Your task to perform on an android device: set an alarm Image 0: 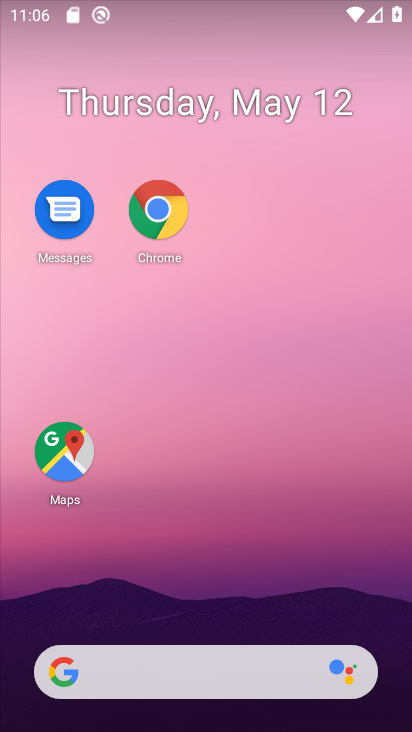
Step 0: drag from (185, 589) to (258, 50)
Your task to perform on an android device: set an alarm Image 1: 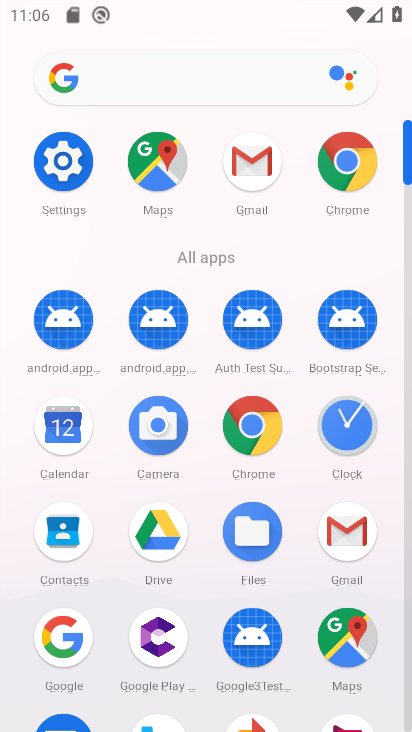
Step 1: click (349, 438)
Your task to perform on an android device: set an alarm Image 2: 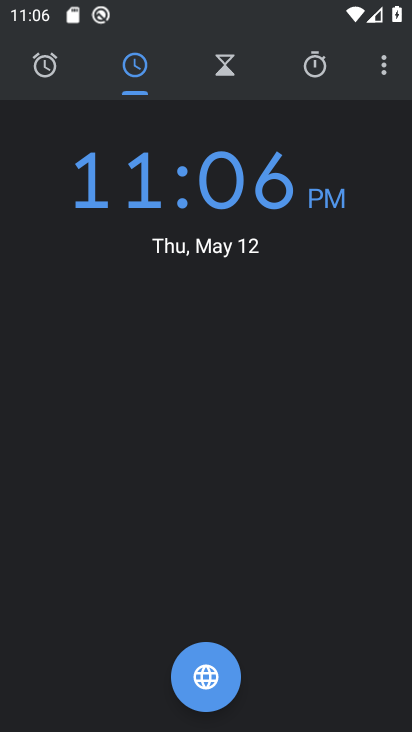
Step 2: click (41, 63)
Your task to perform on an android device: set an alarm Image 3: 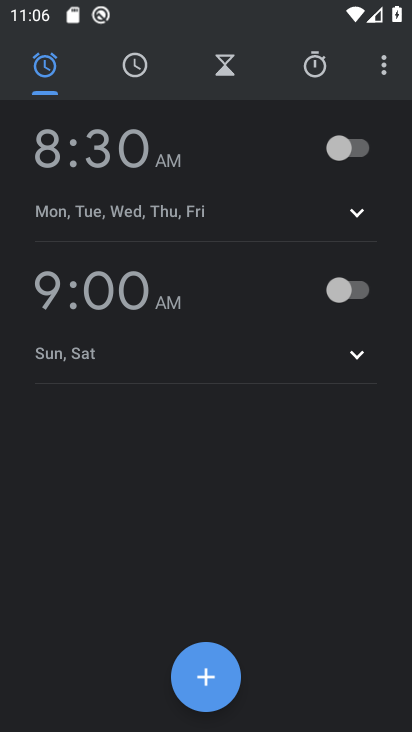
Step 3: click (360, 146)
Your task to perform on an android device: set an alarm Image 4: 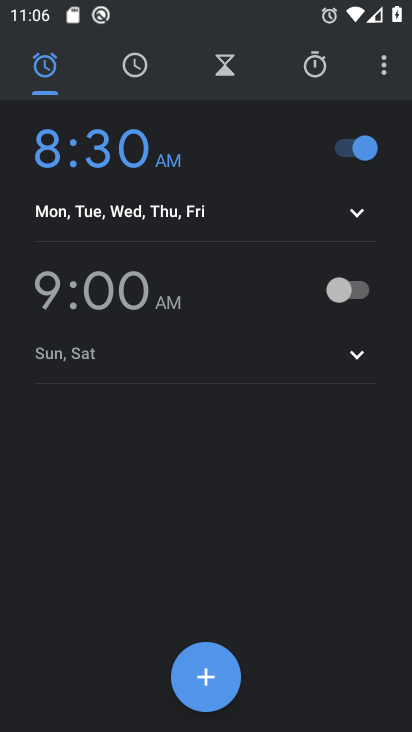
Step 4: task complete